Your task to perform on an android device: Set the phone to "Do not disturb". Image 0: 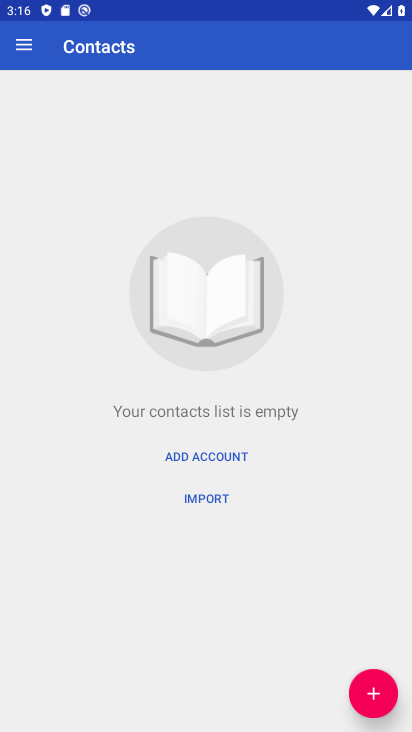
Step 0: press home button
Your task to perform on an android device: Set the phone to "Do not disturb". Image 1: 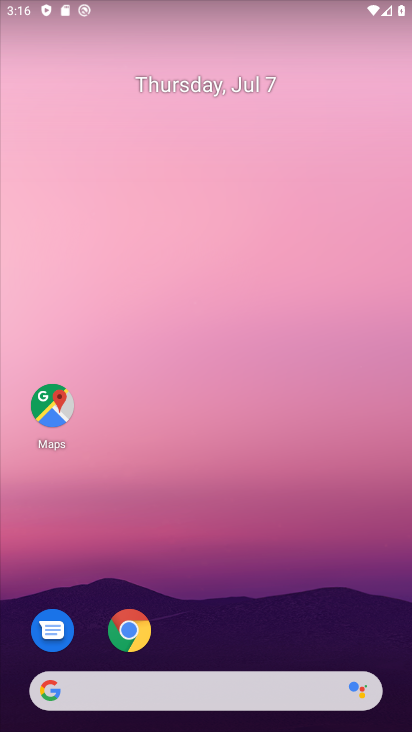
Step 1: drag from (356, 594) to (361, 162)
Your task to perform on an android device: Set the phone to "Do not disturb". Image 2: 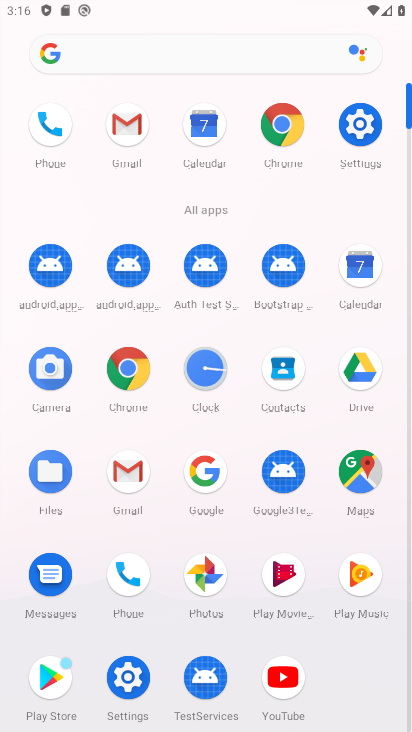
Step 2: click (361, 135)
Your task to perform on an android device: Set the phone to "Do not disturb". Image 3: 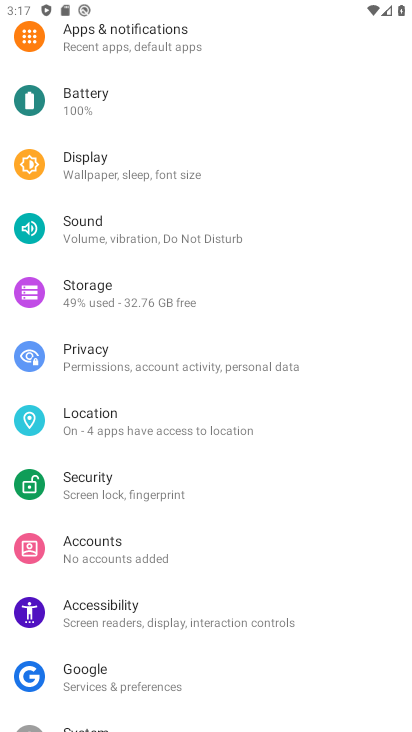
Step 3: drag from (339, 300) to (339, 366)
Your task to perform on an android device: Set the phone to "Do not disturb". Image 4: 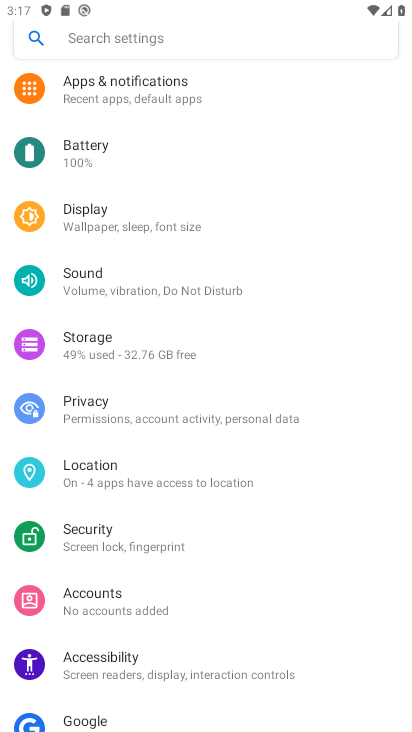
Step 4: drag from (330, 298) to (341, 362)
Your task to perform on an android device: Set the phone to "Do not disturb". Image 5: 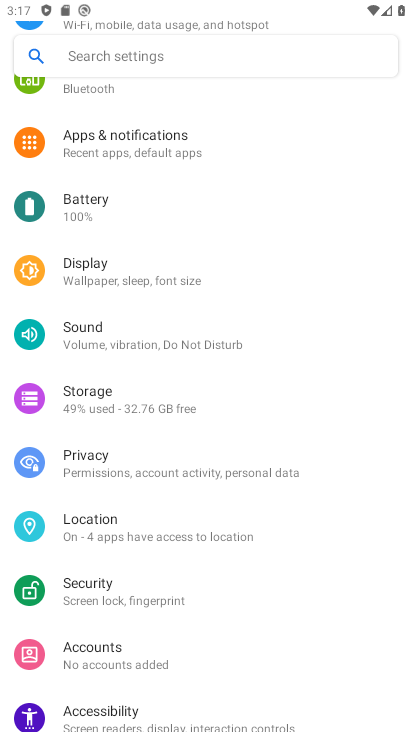
Step 5: drag from (325, 255) to (334, 339)
Your task to perform on an android device: Set the phone to "Do not disturb". Image 6: 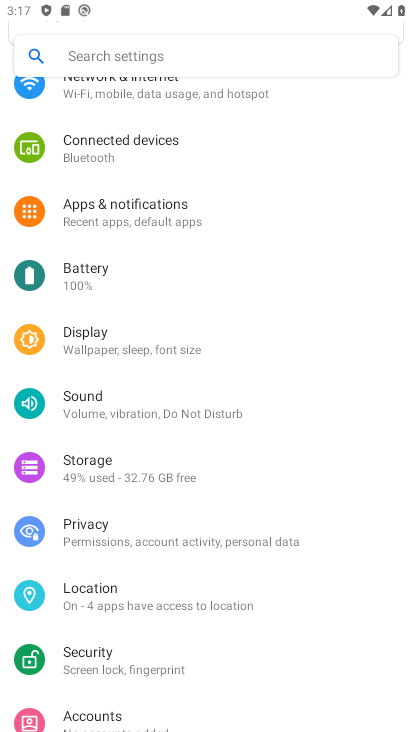
Step 6: drag from (330, 257) to (338, 377)
Your task to perform on an android device: Set the phone to "Do not disturb". Image 7: 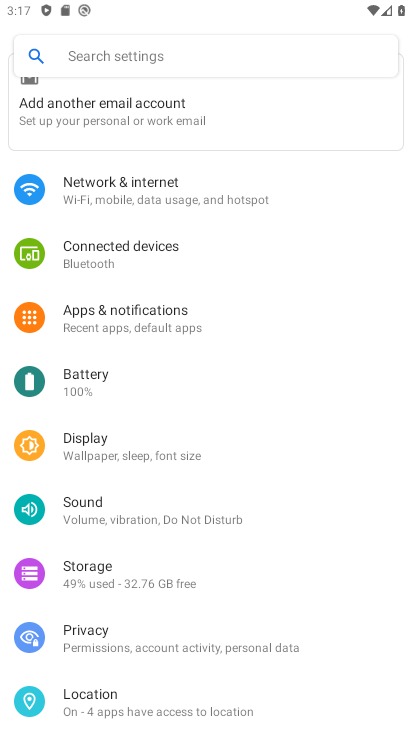
Step 7: click (272, 508)
Your task to perform on an android device: Set the phone to "Do not disturb". Image 8: 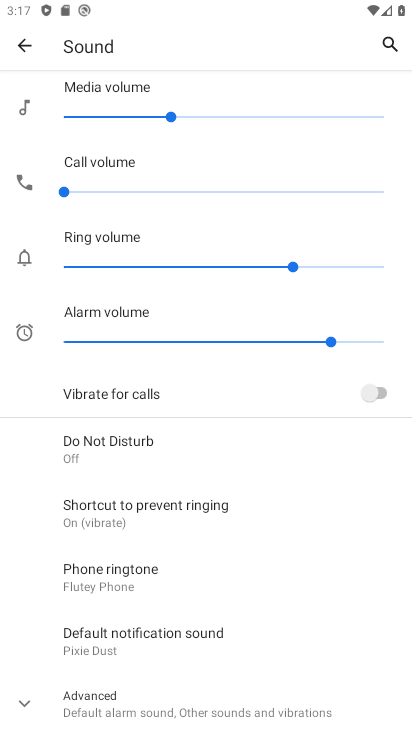
Step 8: drag from (318, 478) to (317, 368)
Your task to perform on an android device: Set the phone to "Do not disturb". Image 9: 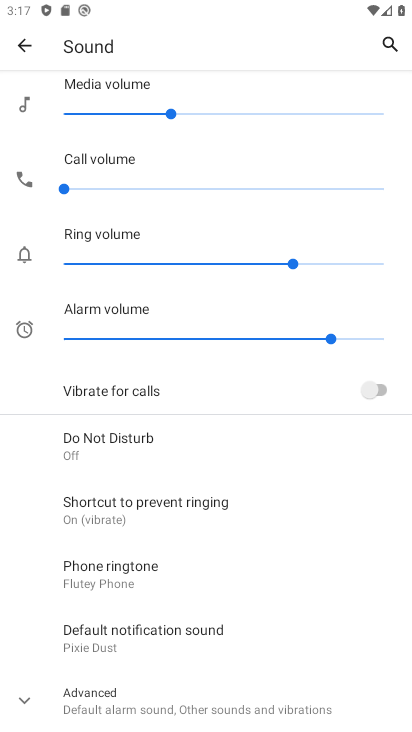
Step 9: click (210, 454)
Your task to perform on an android device: Set the phone to "Do not disturb". Image 10: 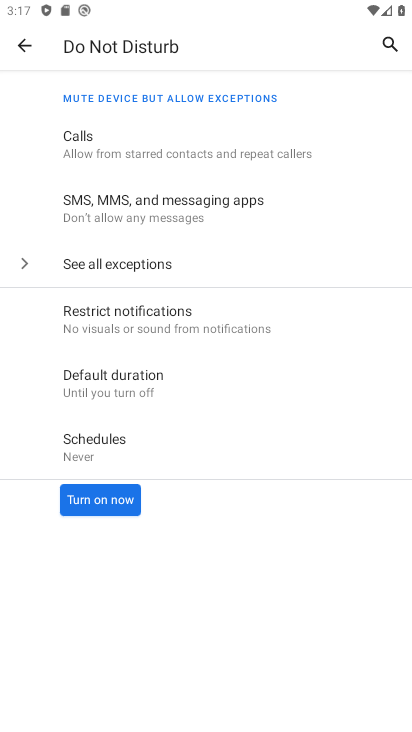
Step 10: click (136, 504)
Your task to perform on an android device: Set the phone to "Do not disturb". Image 11: 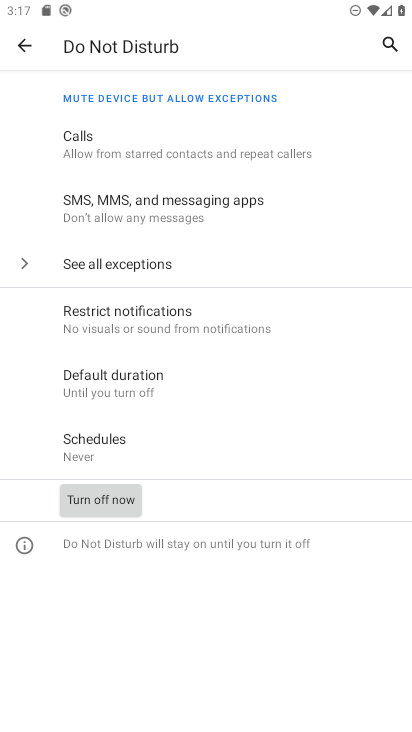
Step 11: task complete